Your task to perform on an android device: Go to network settings Image 0: 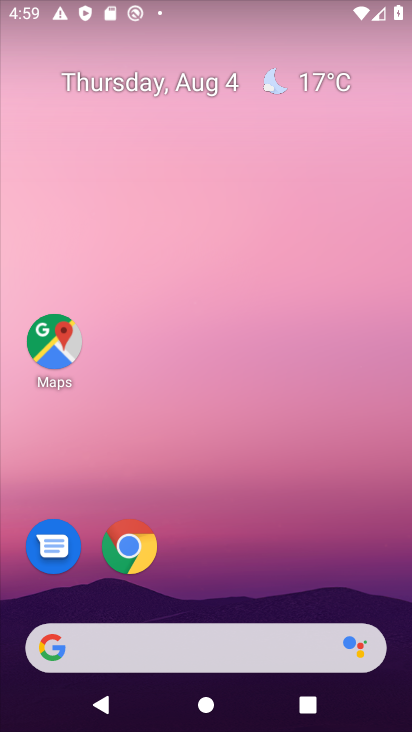
Step 0: drag from (185, 495) to (205, 104)
Your task to perform on an android device: Go to network settings Image 1: 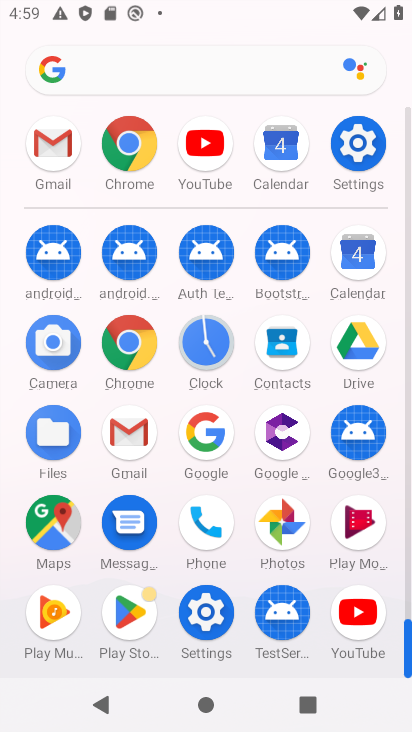
Step 1: click (359, 142)
Your task to perform on an android device: Go to network settings Image 2: 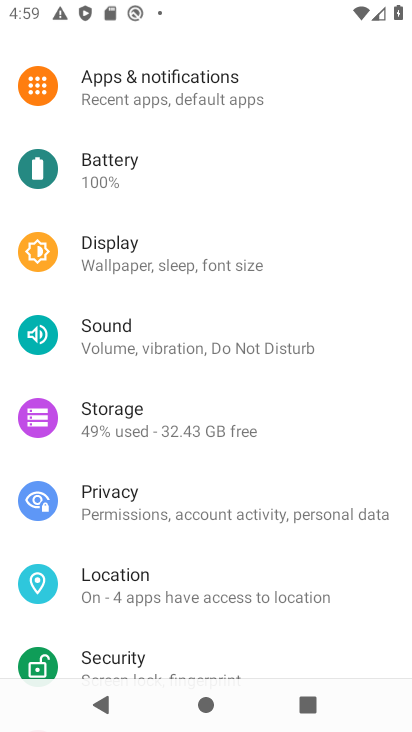
Step 2: drag from (204, 185) to (221, 558)
Your task to perform on an android device: Go to network settings Image 3: 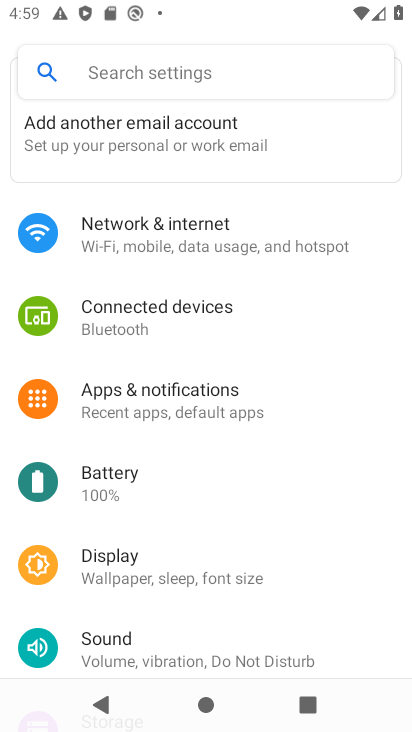
Step 3: click (176, 246)
Your task to perform on an android device: Go to network settings Image 4: 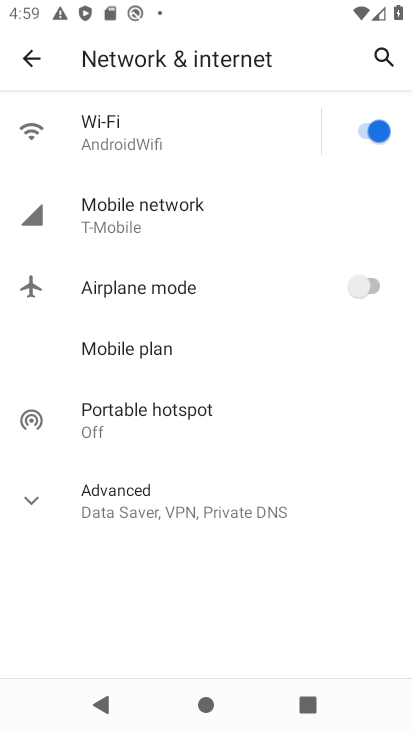
Step 4: task complete